Your task to perform on an android device: open device folders in google photos Image 0: 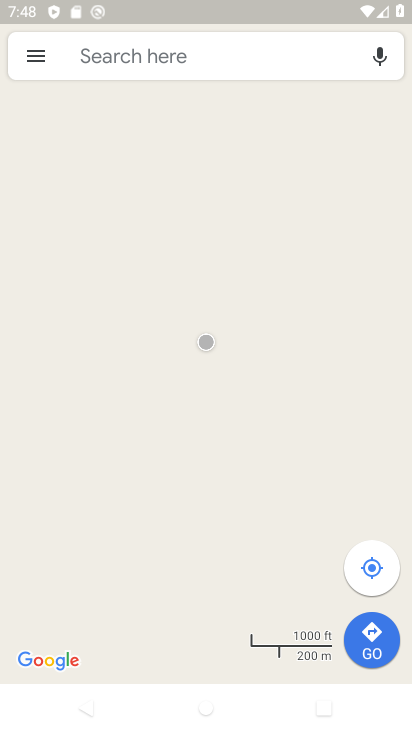
Step 0: press home button
Your task to perform on an android device: open device folders in google photos Image 1: 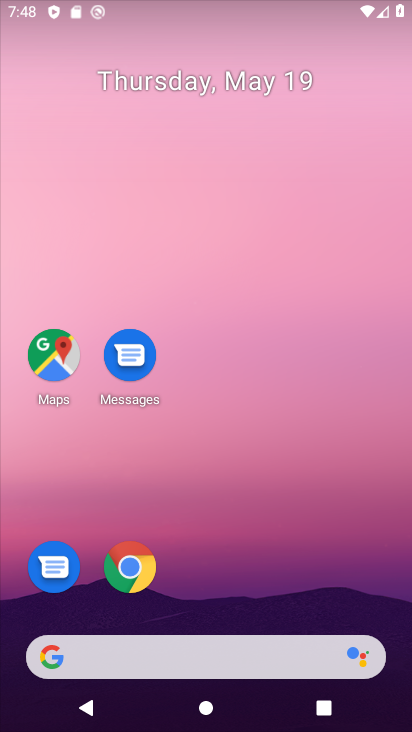
Step 1: drag from (223, 617) to (215, 45)
Your task to perform on an android device: open device folders in google photos Image 2: 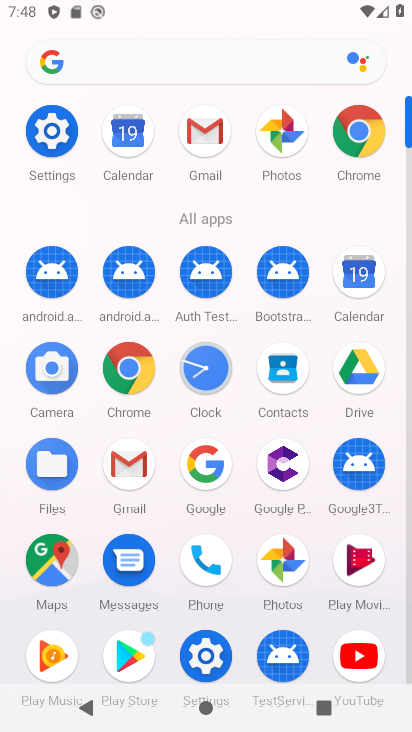
Step 2: click (284, 122)
Your task to perform on an android device: open device folders in google photos Image 3: 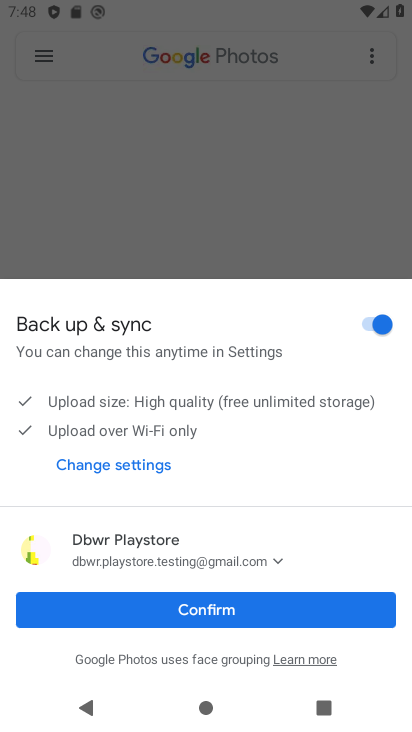
Step 3: click (41, 53)
Your task to perform on an android device: open device folders in google photos Image 4: 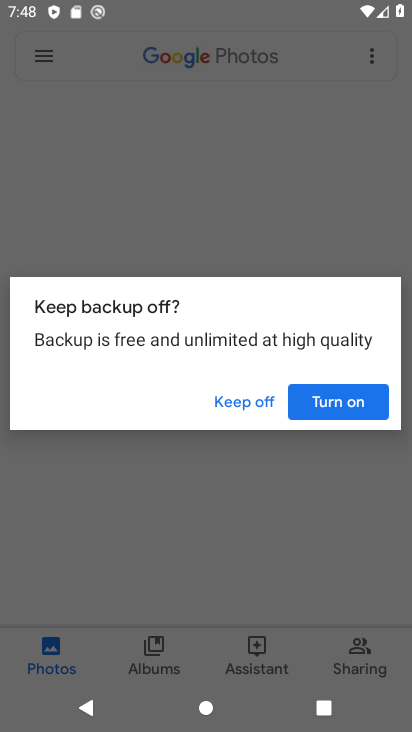
Step 4: click (246, 408)
Your task to perform on an android device: open device folders in google photos Image 5: 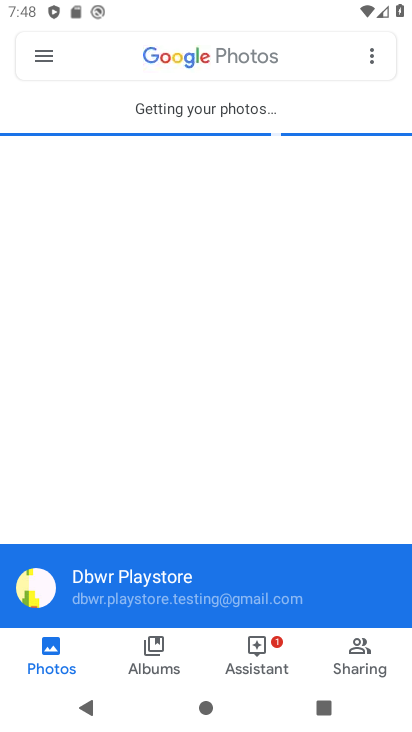
Step 5: click (44, 60)
Your task to perform on an android device: open device folders in google photos Image 6: 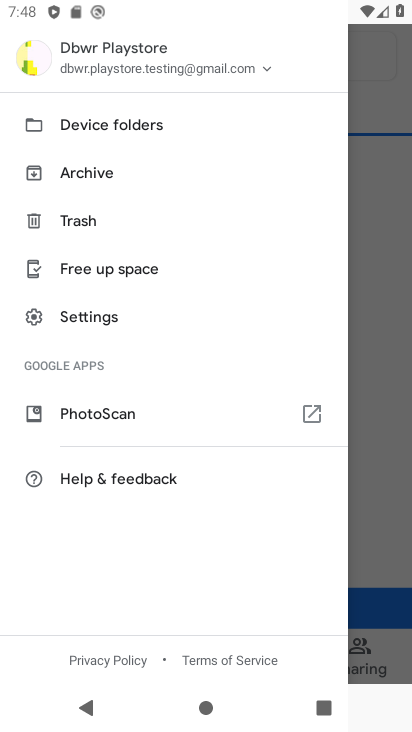
Step 6: click (99, 115)
Your task to perform on an android device: open device folders in google photos Image 7: 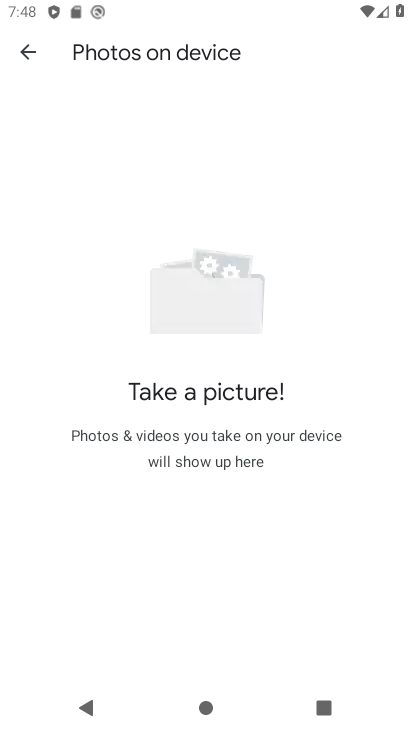
Step 7: task complete